Your task to perform on an android device: find photos in the google photos app Image 0: 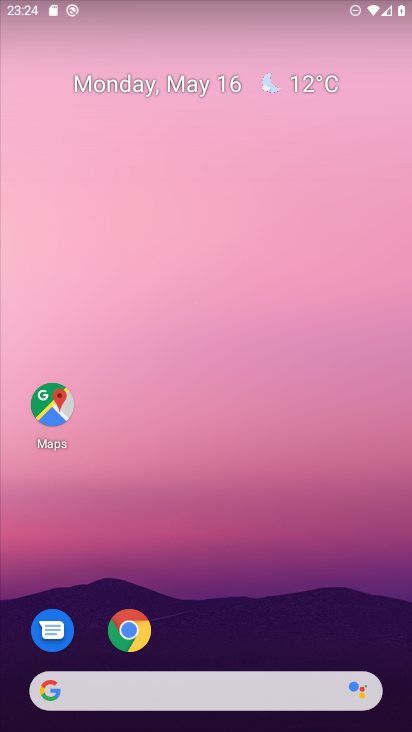
Step 0: drag from (288, 577) to (250, 98)
Your task to perform on an android device: find photos in the google photos app Image 1: 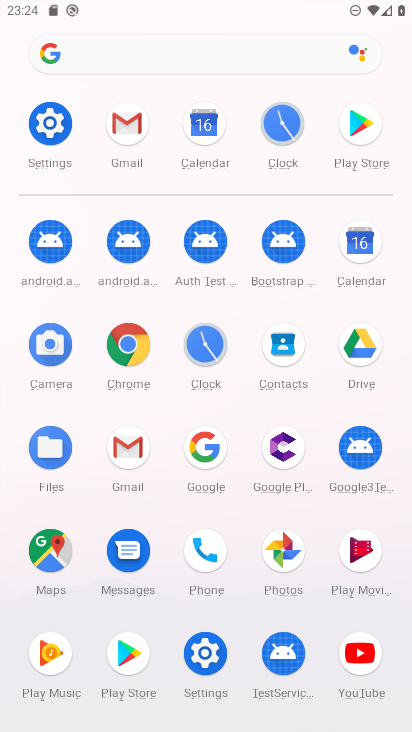
Step 1: click (281, 543)
Your task to perform on an android device: find photos in the google photos app Image 2: 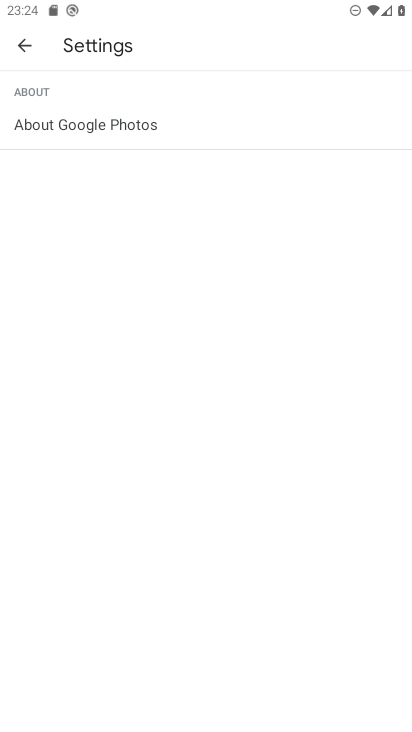
Step 2: click (17, 35)
Your task to perform on an android device: find photos in the google photos app Image 3: 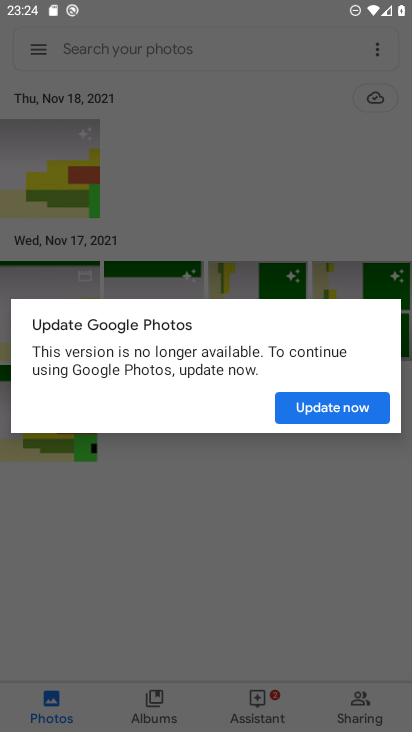
Step 3: click (328, 405)
Your task to perform on an android device: find photos in the google photos app Image 4: 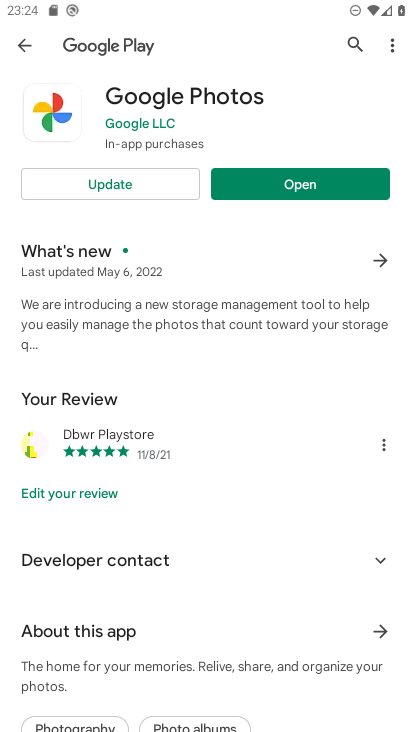
Step 4: click (304, 186)
Your task to perform on an android device: find photos in the google photos app Image 5: 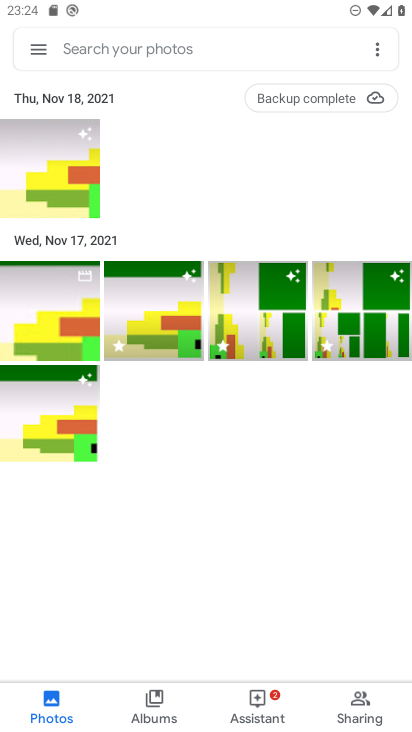
Step 5: click (55, 709)
Your task to perform on an android device: find photos in the google photos app Image 6: 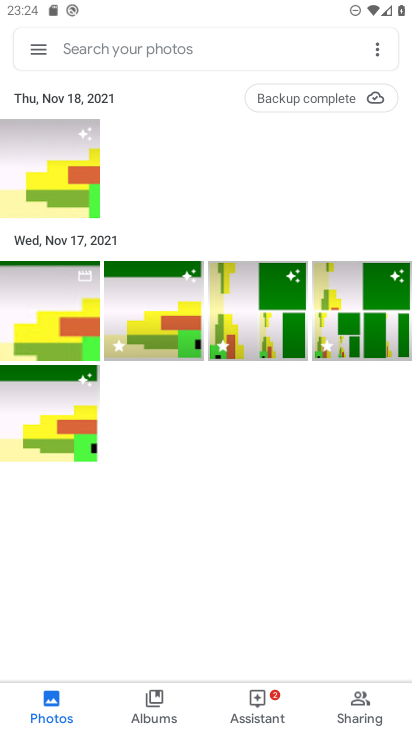
Step 6: task complete